Your task to perform on an android device: turn on airplane mode Image 0: 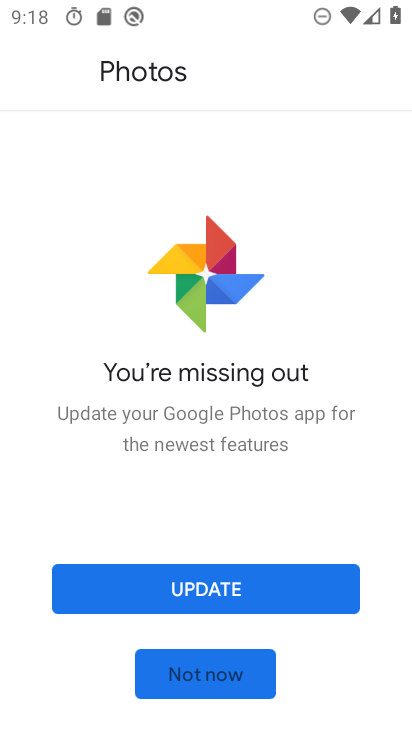
Step 0: press home button
Your task to perform on an android device: turn on airplane mode Image 1: 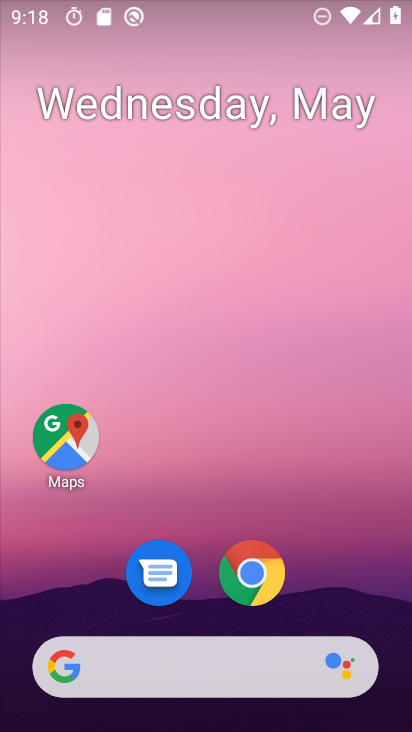
Step 1: drag from (397, 720) to (361, 282)
Your task to perform on an android device: turn on airplane mode Image 2: 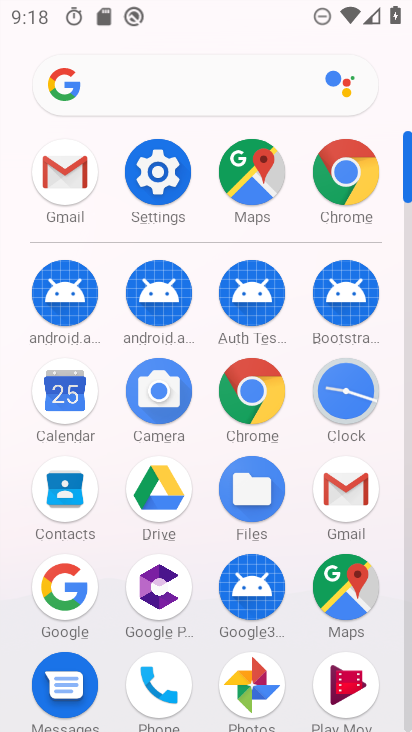
Step 2: click (186, 197)
Your task to perform on an android device: turn on airplane mode Image 3: 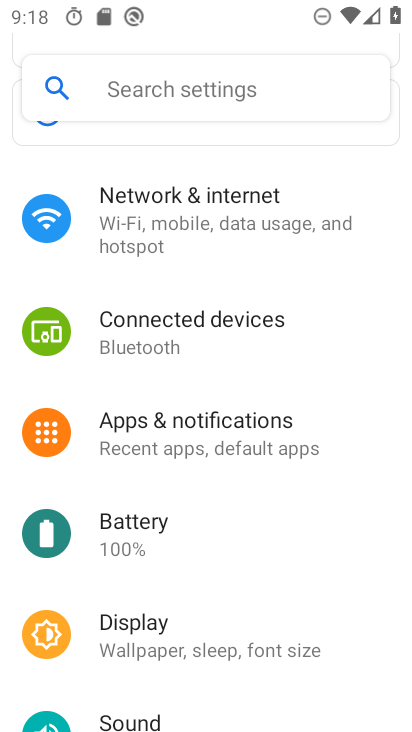
Step 3: drag from (351, 201) to (360, 523)
Your task to perform on an android device: turn on airplane mode Image 4: 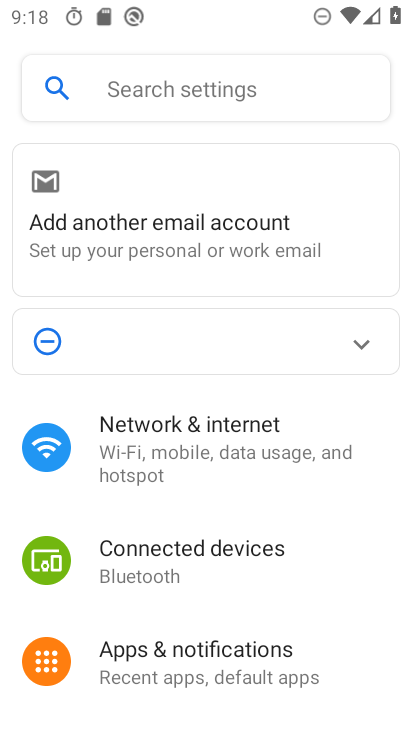
Step 4: click (124, 437)
Your task to perform on an android device: turn on airplane mode Image 5: 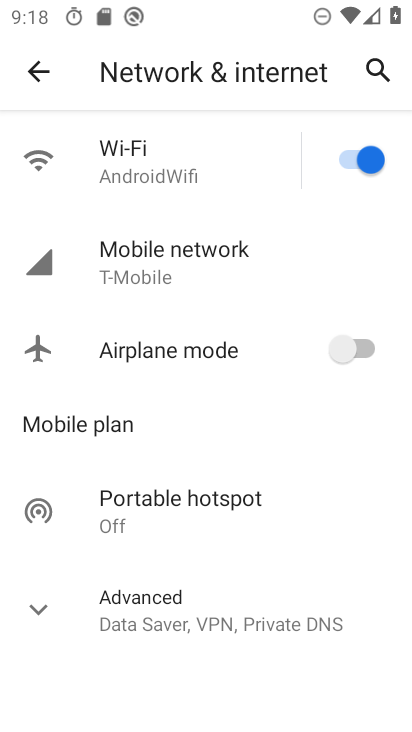
Step 5: click (356, 355)
Your task to perform on an android device: turn on airplane mode Image 6: 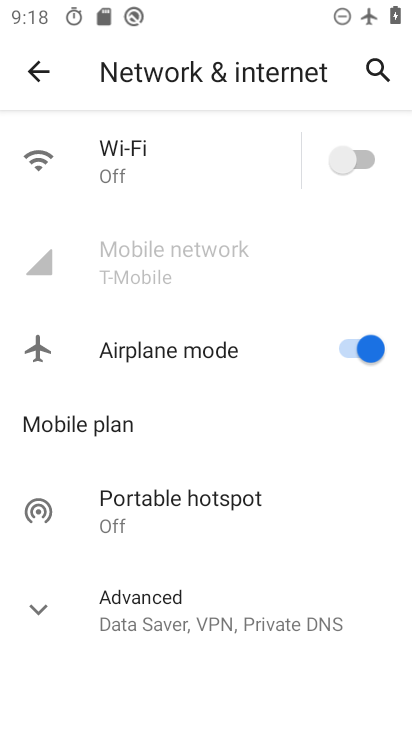
Step 6: task complete